Your task to perform on an android device: Open the calendar app, open the side menu, and click the "Day" option Image 0: 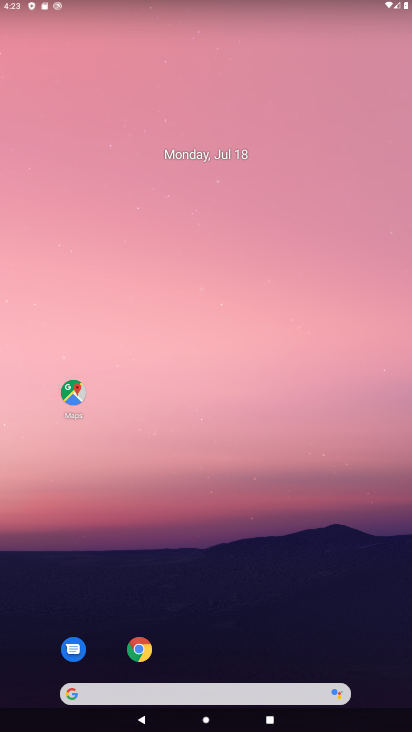
Step 0: drag from (179, 631) to (196, 107)
Your task to perform on an android device: Open the calendar app, open the side menu, and click the "Day" option Image 1: 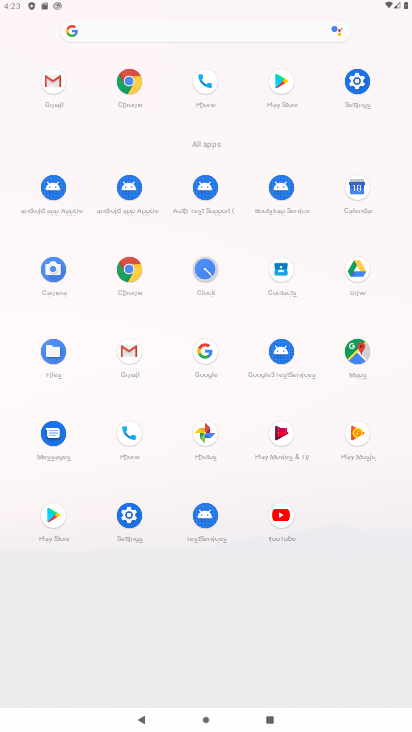
Step 1: click (355, 197)
Your task to perform on an android device: Open the calendar app, open the side menu, and click the "Day" option Image 2: 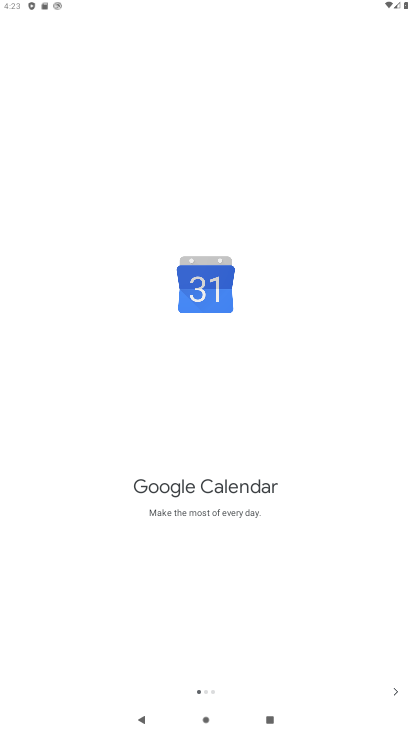
Step 2: click (392, 692)
Your task to perform on an android device: Open the calendar app, open the side menu, and click the "Day" option Image 3: 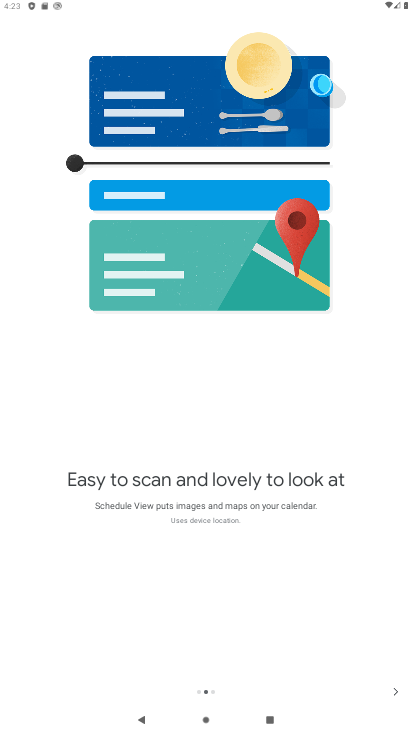
Step 3: click (392, 692)
Your task to perform on an android device: Open the calendar app, open the side menu, and click the "Day" option Image 4: 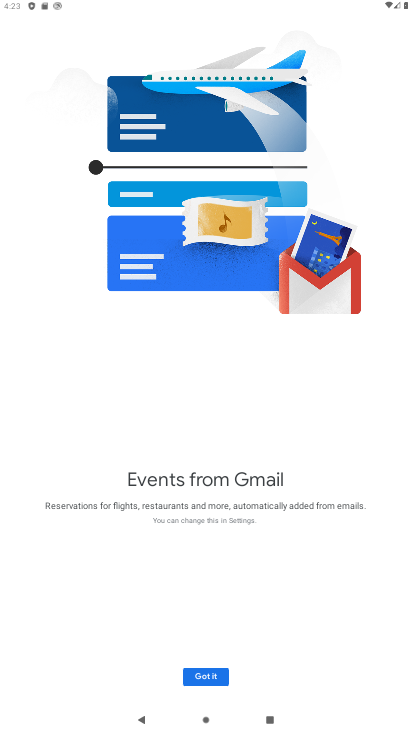
Step 4: click (209, 681)
Your task to perform on an android device: Open the calendar app, open the side menu, and click the "Day" option Image 5: 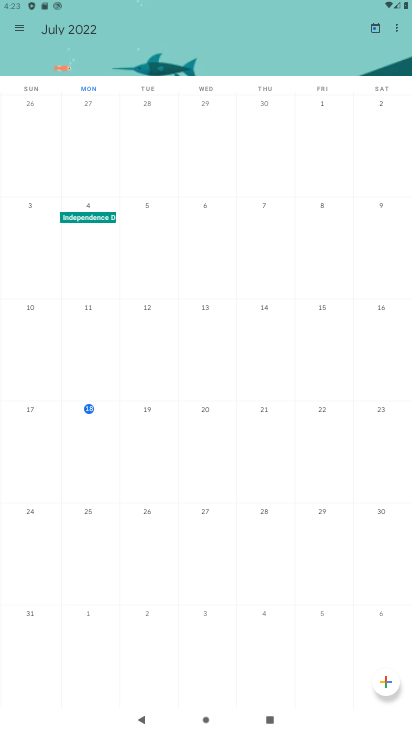
Step 5: click (20, 28)
Your task to perform on an android device: Open the calendar app, open the side menu, and click the "Day" option Image 6: 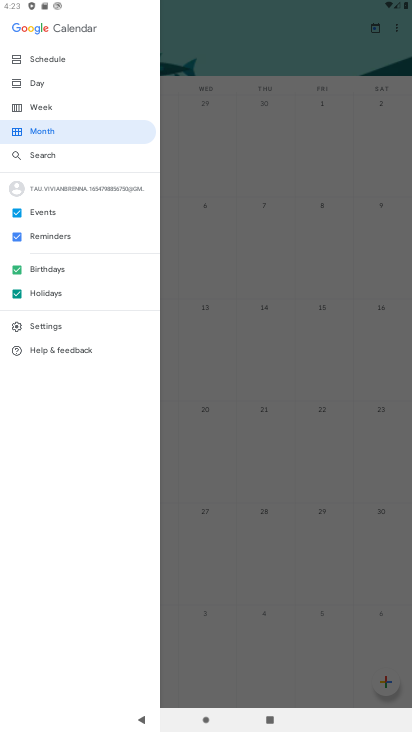
Step 6: click (37, 80)
Your task to perform on an android device: Open the calendar app, open the side menu, and click the "Day" option Image 7: 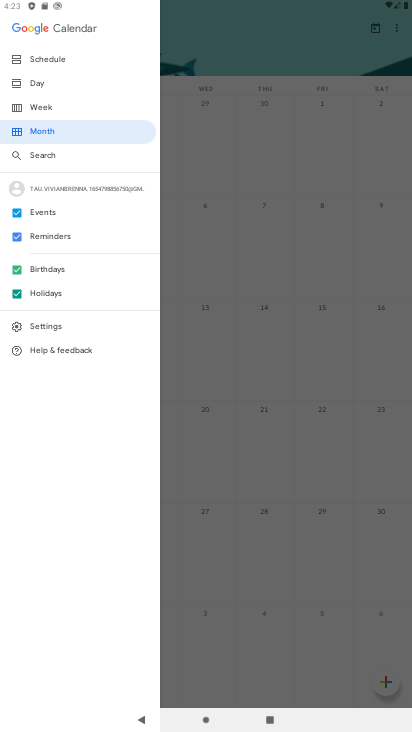
Step 7: click (43, 83)
Your task to perform on an android device: Open the calendar app, open the side menu, and click the "Day" option Image 8: 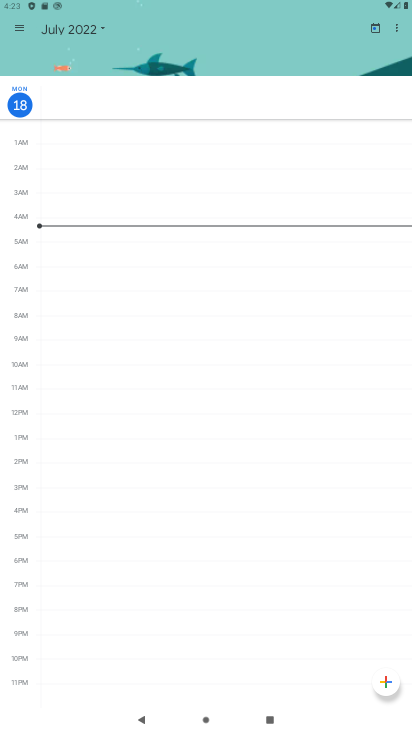
Step 8: task complete